Your task to perform on an android device: see sites visited before in the chrome app Image 0: 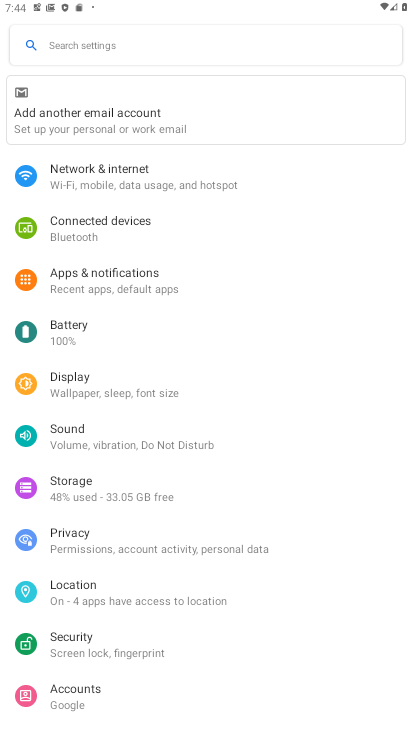
Step 0: press home button
Your task to perform on an android device: see sites visited before in the chrome app Image 1: 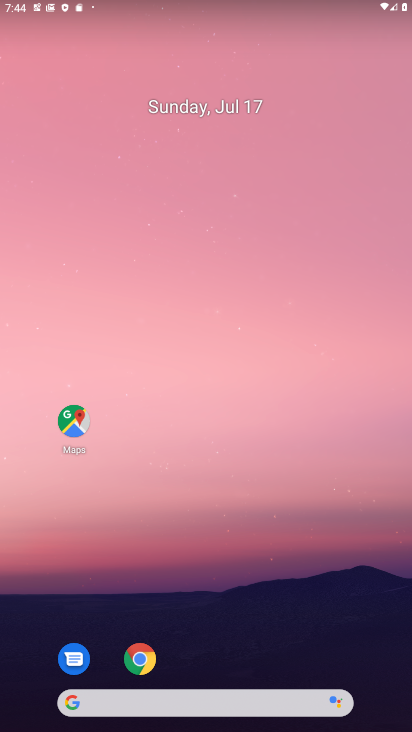
Step 1: click (132, 659)
Your task to perform on an android device: see sites visited before in the chrome app Image 2: 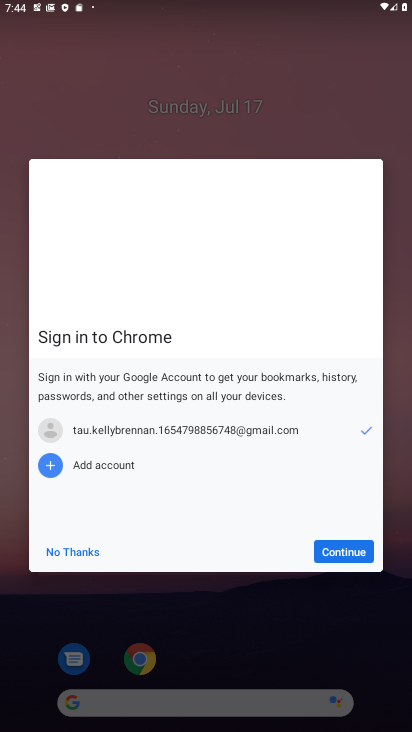
Step 2: click (335, 551)
Your task to perform on an android device: see sites visited before in the chrome app Image 3: 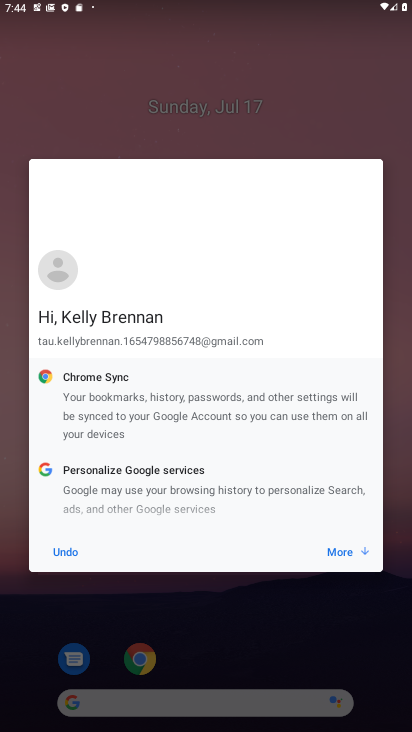
Step 3: click (336, 552)
Your task to perform on an android device: see sites visited before in the chrome app Image 4: 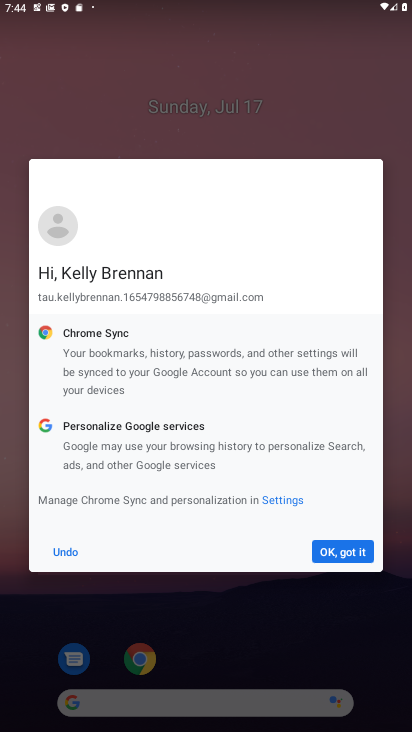
Step 4: click (336, 552)
Your task to perform on an android device: see sites visited before in the chrome app Image 5: 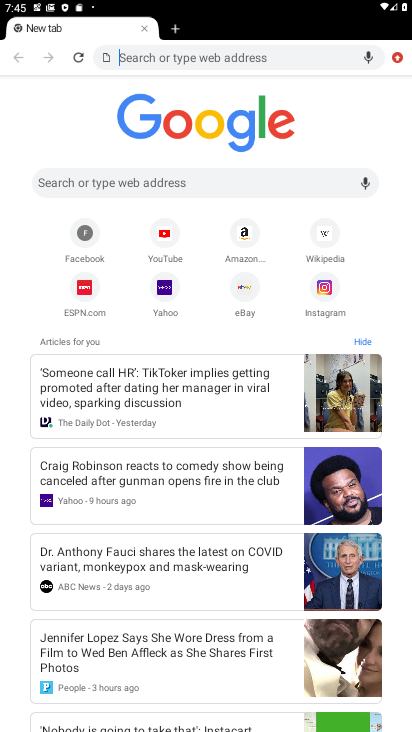
Step 5: click (406, 64)
Your task to perform on an android device: see sites visited before in the chrome app Image 6: 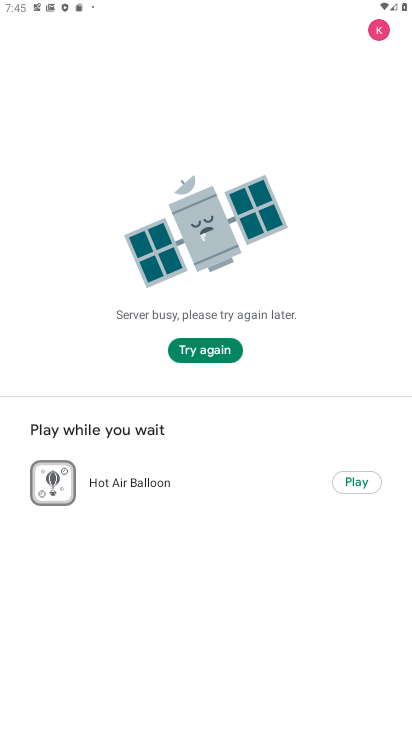
Step 6: press back button
Your task to perform on an android device: see sites visited before in the chrome app Image 7: 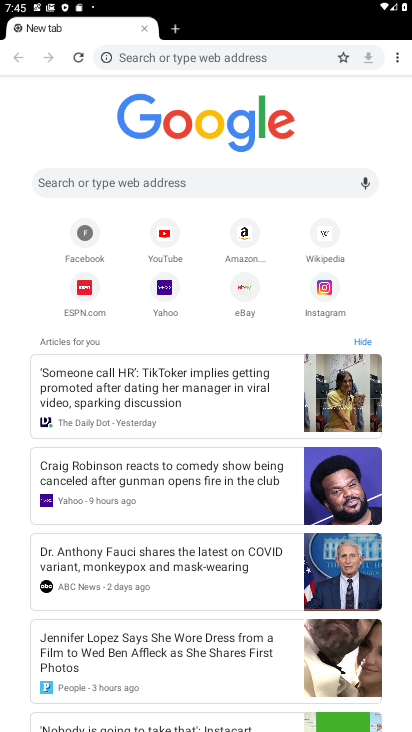
Step 7: click (391, 56)
Your task to perform on an android device: see sites visited before in the chrome app Image 8: 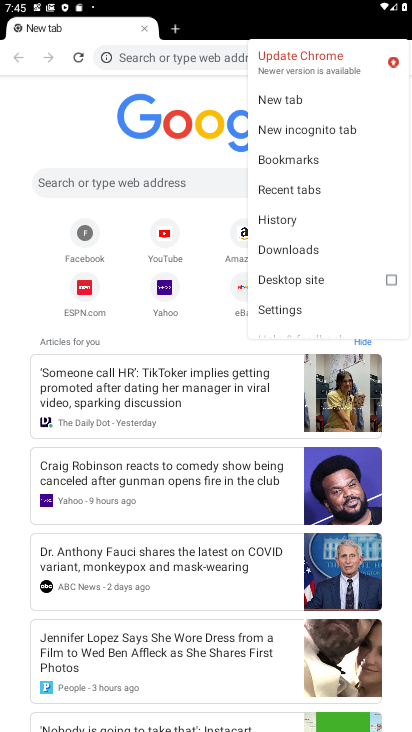
Step 8: click (313, 185)
Your task to perform on an android device: see sites visited before in the chrome app Image 9: 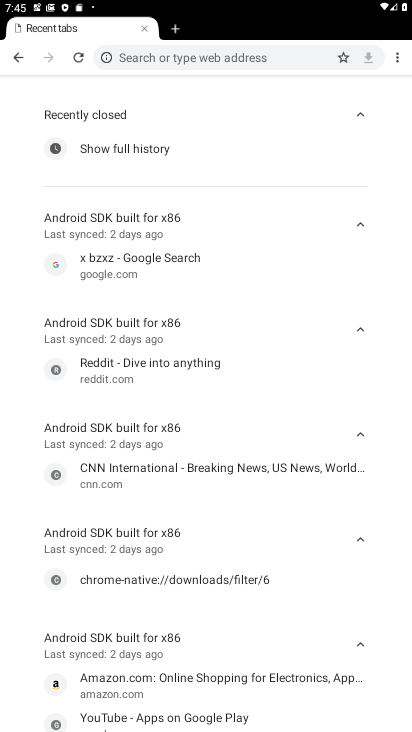
Step 9: task complete